Your task to perform on an android device: Is it going to rain this weekend? Image 0: 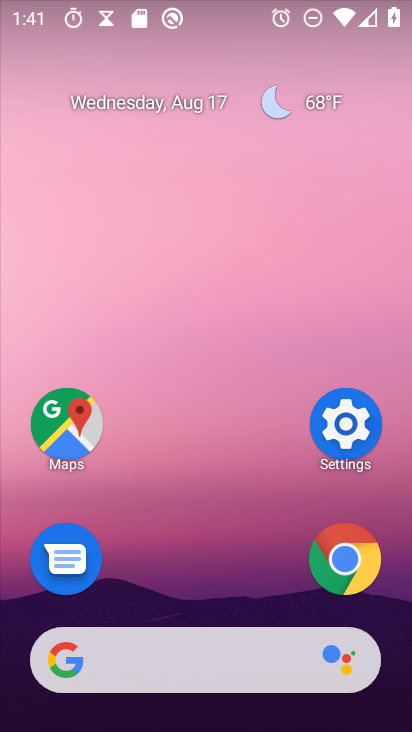
Step 0: click (144, 656)
Your task to perform on an android device: Is it going to rain this weekend? Image 1: 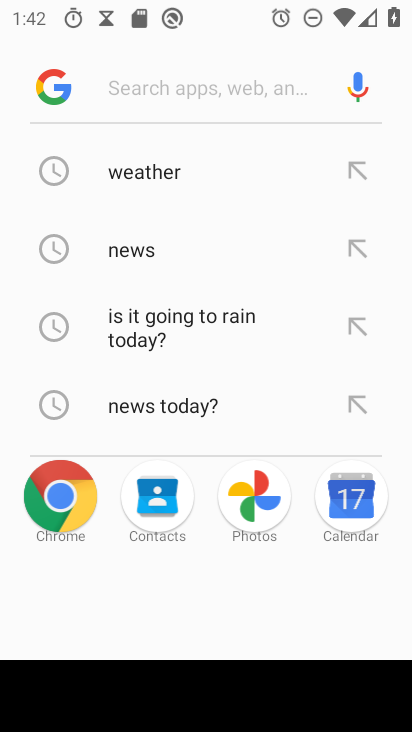
Step 1: press enter
Your task to perform on an android device: Is it going to rain this weekend? Image 2: 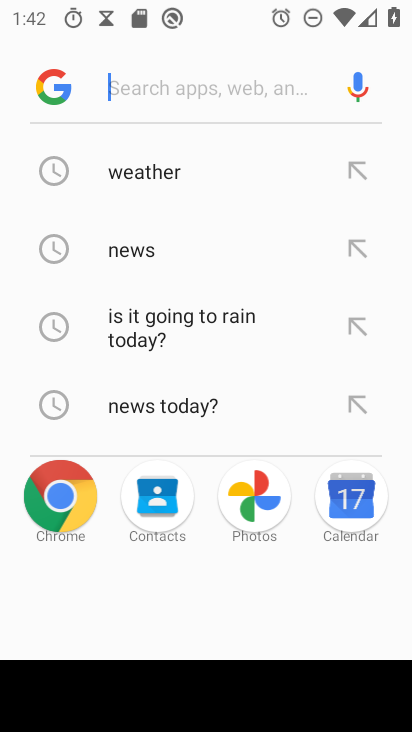
Step 2: type "Is it going to rain this weekend"
Your task to perform on an android device: Is it going to rain this weekend? Image 3: 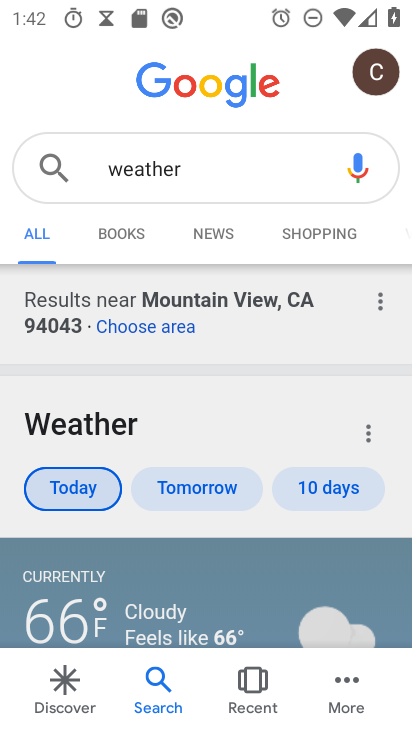
Step 3: click (326, 490)
Your task to perform on an android device: Is it going to rain this weekend? Image 4: 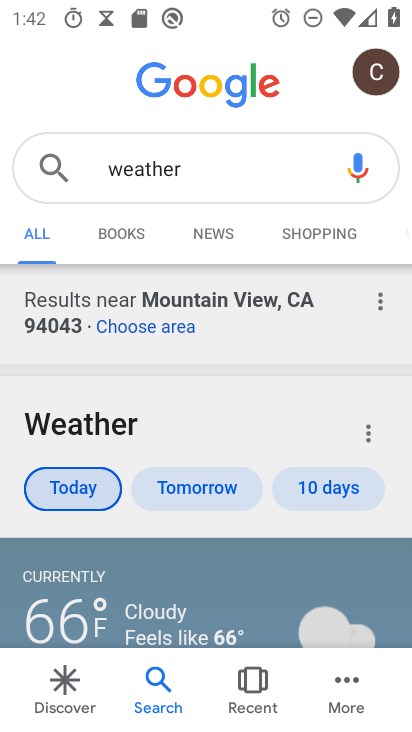
Step 4: click (337, 481)
Your task to perform on an android device: Is it going to rain this weekend? Image 5: 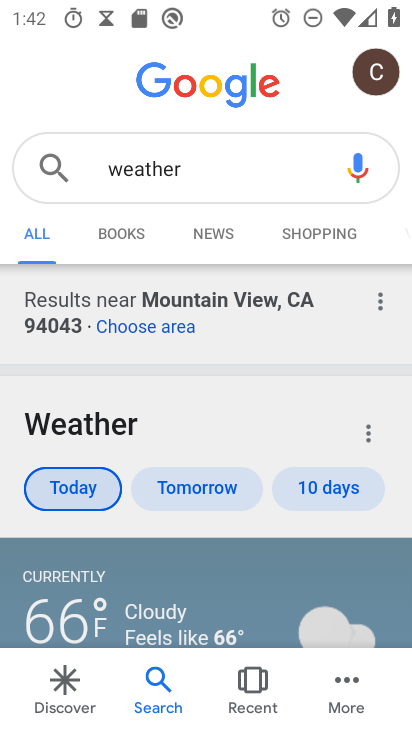
Step 5: click (337, 482)
Your task to perform on an android device: Is it going to rain this weekend? Image 6: 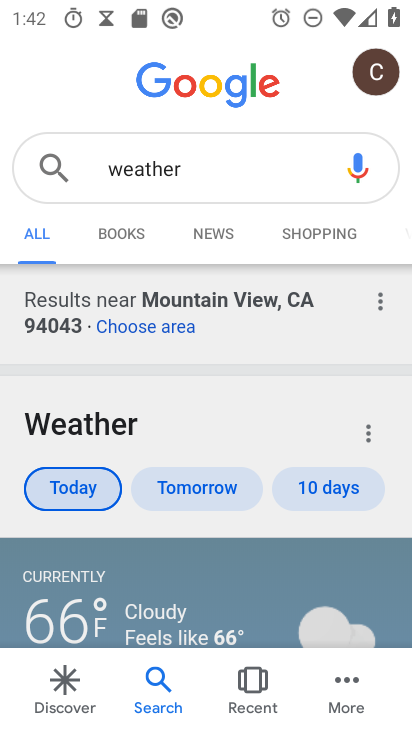
Step 6: click (337, 482)
Your task to perform on an android device: Is it going to rain this weekend? Image 7: 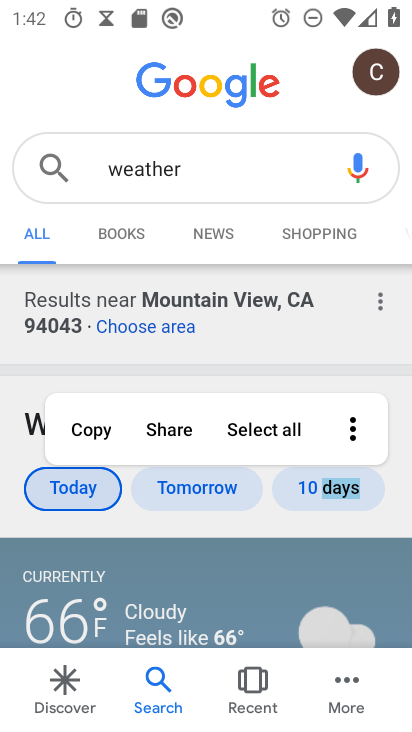
Step 7: drag from (240, 586) to (298, 272)
Your task to perform on an android device: Is it going to rain this weekend? Image 8: 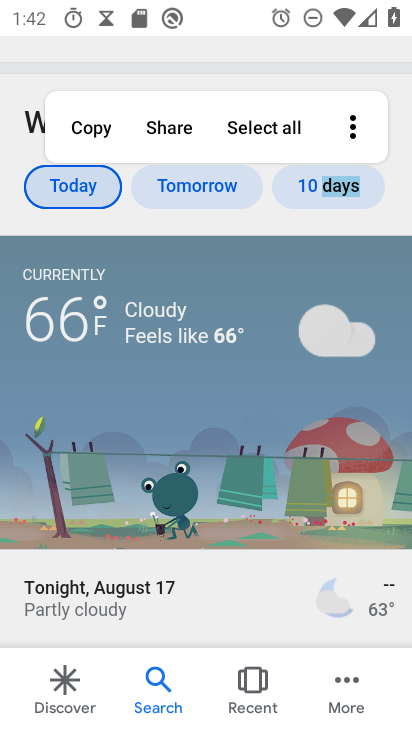
Step 8: click (311, 193)
Your task to perform on an android device: Is it going to rain this weekend? Image 9: 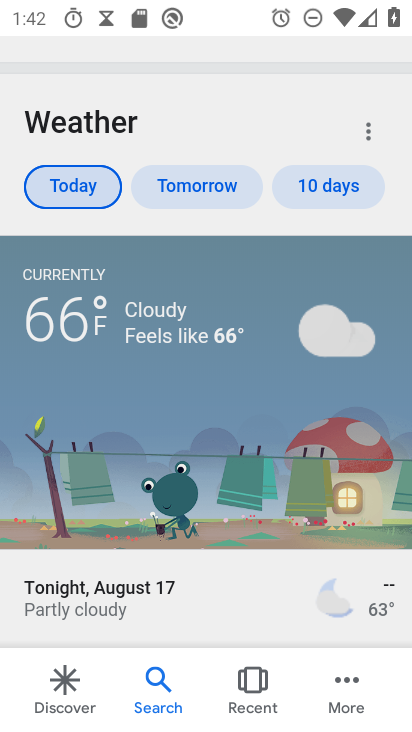
Step 9: click (307, 177)
Your task to perform on an android device: Is it going to rain this weekend? Image 10: 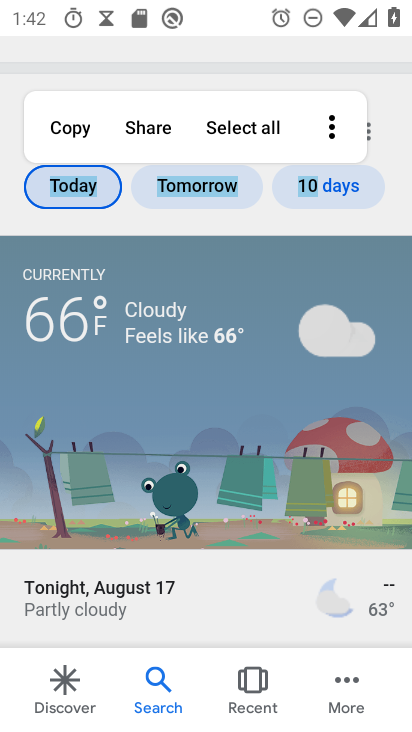
Step 10: task complete